Your task to perform on an android device: change your default location settings in chrome Image 0: 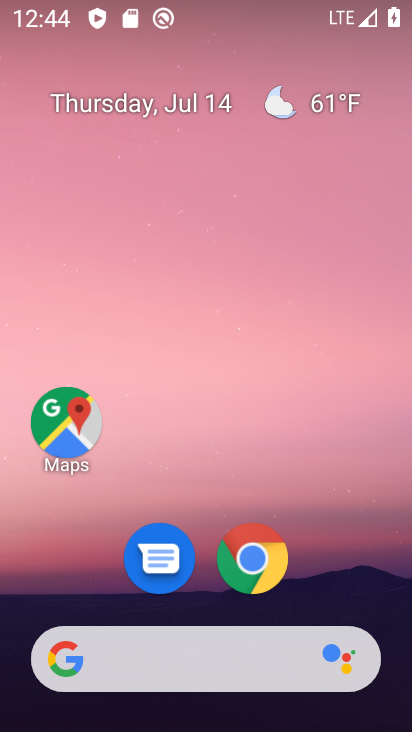
Step 0: click (240, 556)
Your task to perform on an android device: change your default location settings in chrome Image 1: 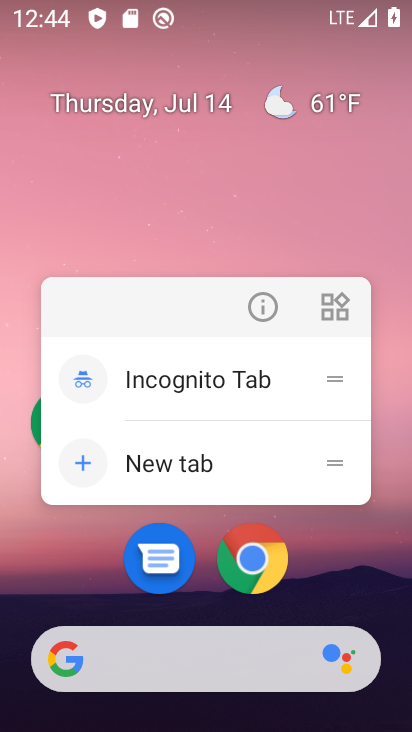
Step 1: click (249, 539)
Your task to perform on an android device: change your default location settings in chrome Image 2: 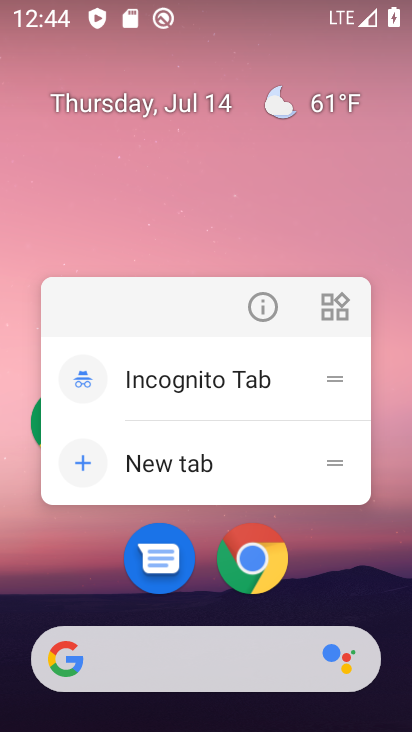
Step 2: click (258, 568)
Your task to perform on an android device: change your default location settings in chrome Image 3: 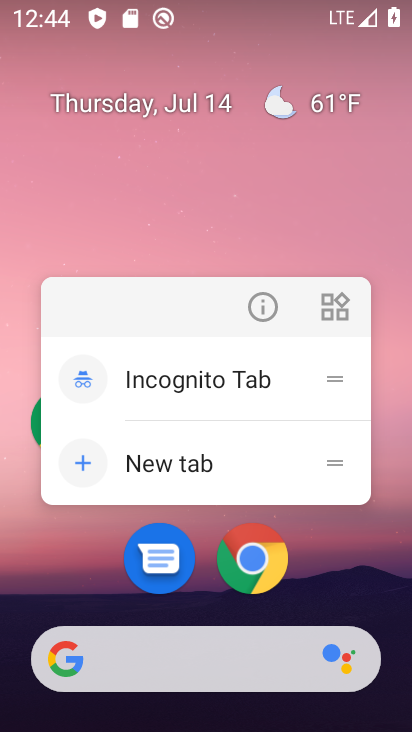
Step 3: click (243, 576)
Your task to perform on an android device: change your default location settings in chrome Image 4: 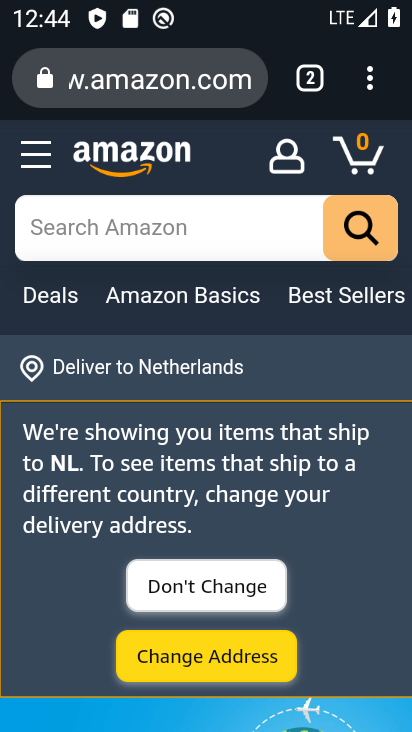
Step 4: drag from (376, 76) to (118, 614)
Your task to perform on an android device: change your default location settings in chrome Image 5: 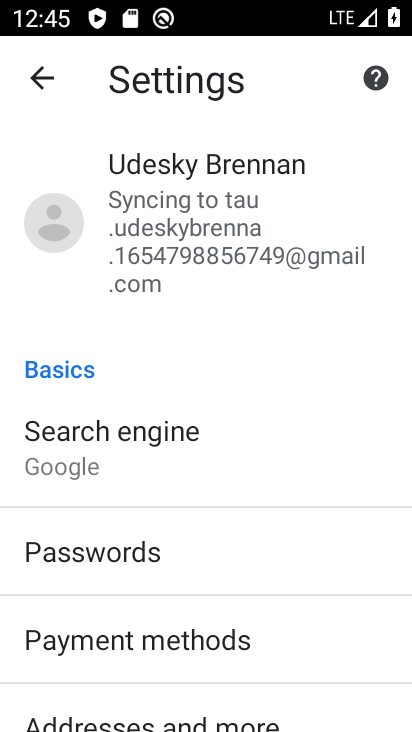
Step 5: drag from (139, 638) to (230, 275)
Your task to perform on an android device: change your default location settings in chrome Image 6: 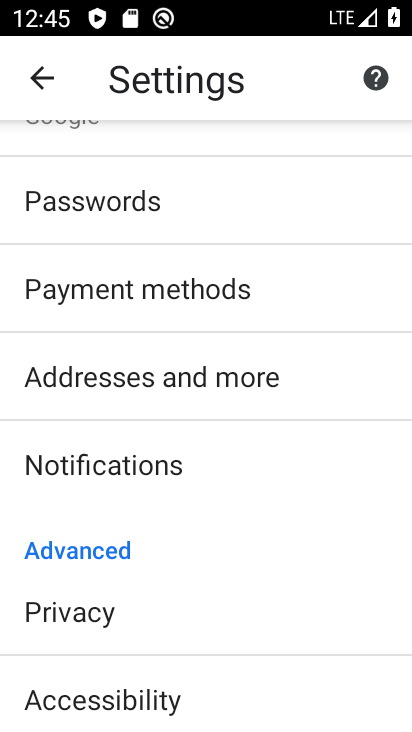
Step 6: drag from (115, 662) to (232, 193)
Your task to perform on an android device: change your default location settings in chrome Image 7: 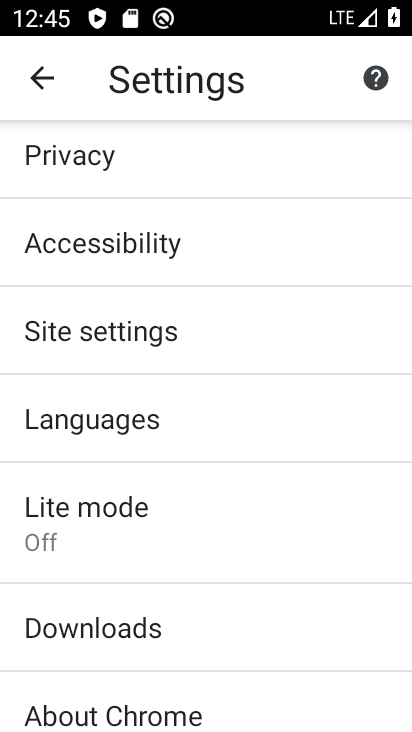
Step 7: click (133, 333)
Your task to perform on an android device: change your default location settings in chrome Image 8: 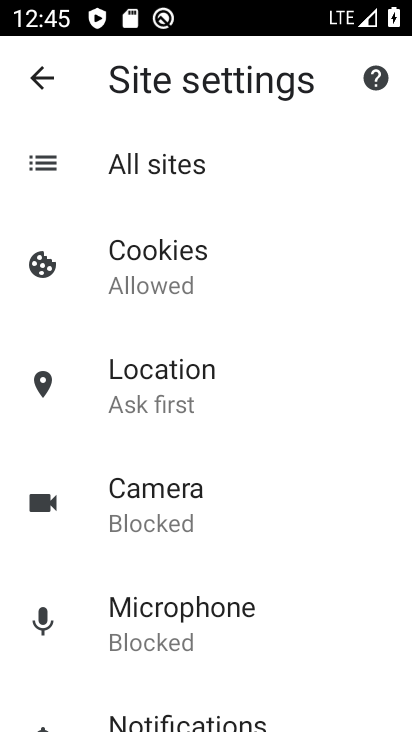
Step 8: click (136, 392)
Your task to perform on an android device: change your default location settings in chrome Image 9: 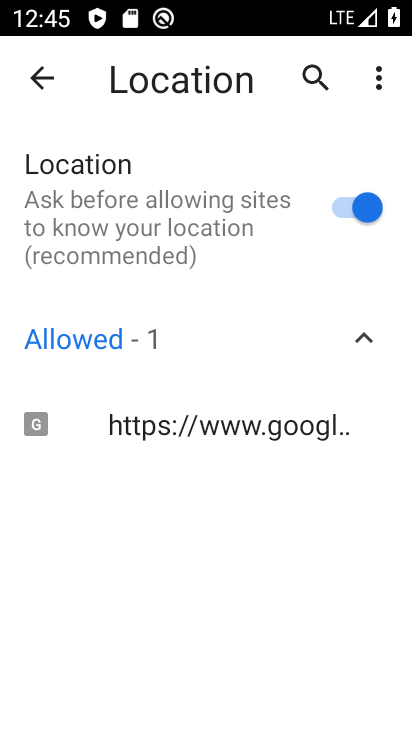
Step 9: click (360, 214)
Your task to perform on an android device: change your default location settings in chrome Image 10: 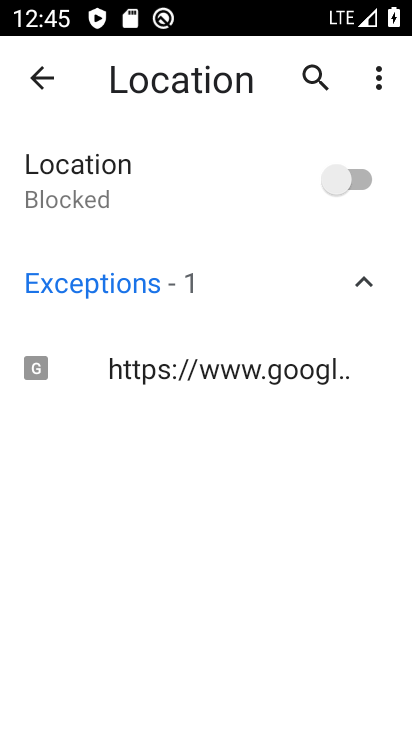
Step 10: task complete